Your task to perform on an android device: Search for Italian restaurants on Maps Image 0: 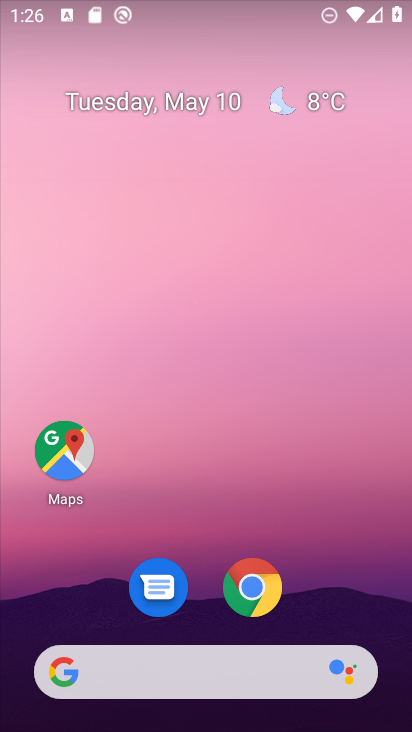
Step 0: drag from (301, 324) to (275, 198)
Your task to perform on an android device: Search for Italian restaurants on Maps Image 1: 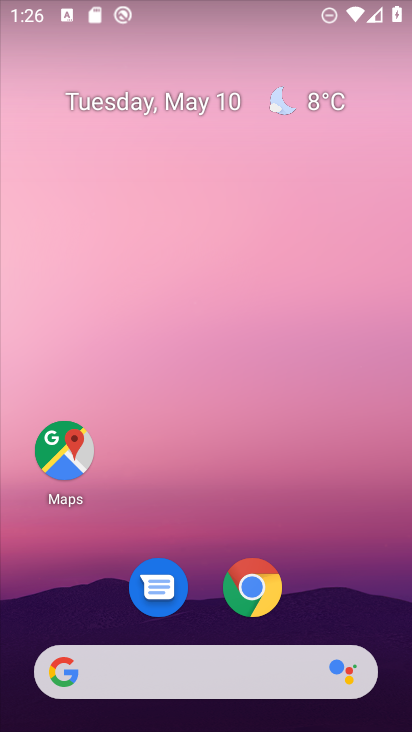
Step 1: click (54, 443)
Your task to perform on an android device: Search for Italian restaurants on Maps Image 2: 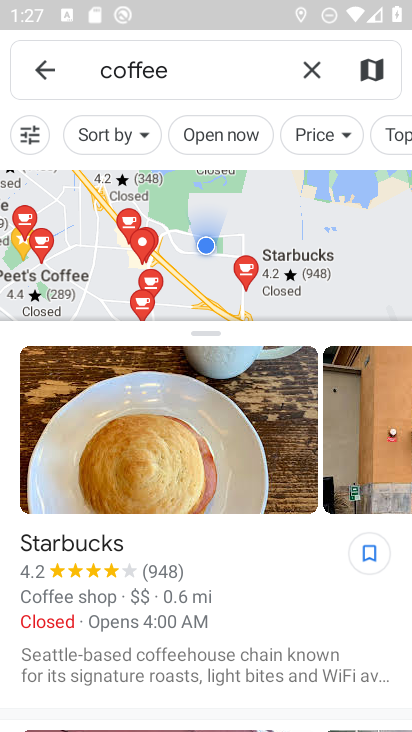
Step 2: click (321, 72)
Your task to perform on an android device: Search for Italian restaurants on Maps Image 3: 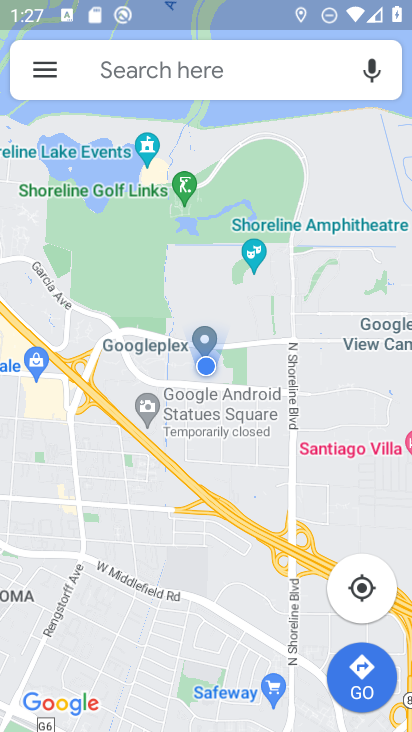
Step 3: click (140, 74)
Your task to perform on an android device: Search for Italian restaurants on Maps Image 4: 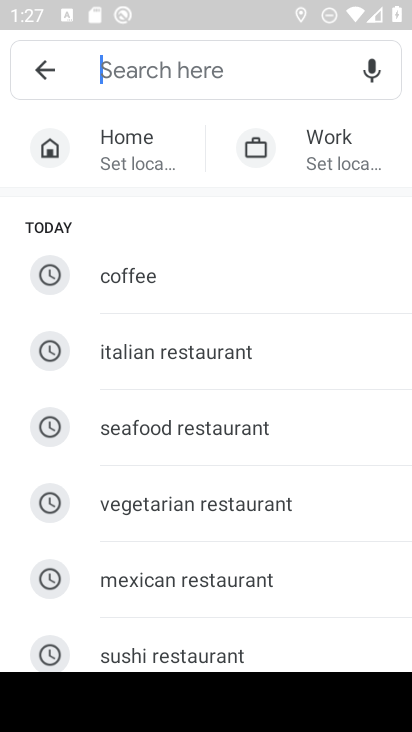
Step 4: type "Italian restaurants"
Your task to perform on an android device: Search for Italian restaurants on Maps Image 5: 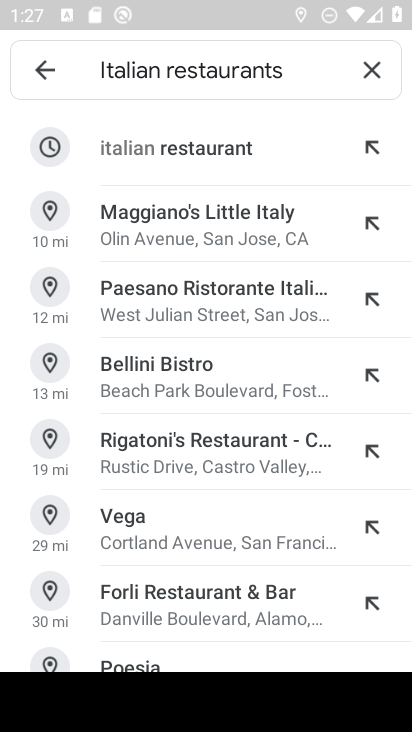
Step 5: click (210, 138)
Your task to perform on an android device: Search for Italian restaurants on Maps Image 6: 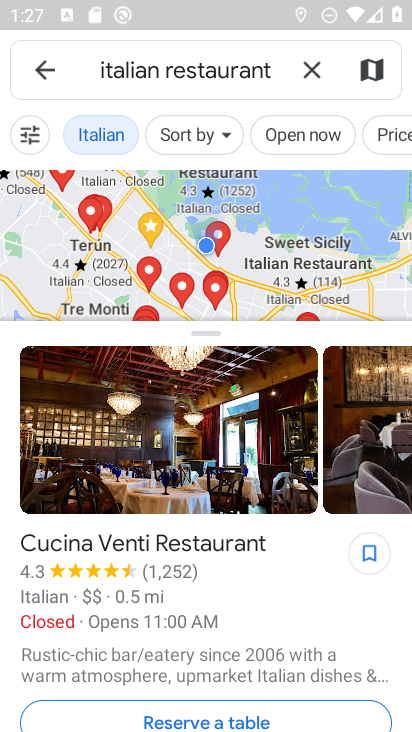
Step 6: task complete